Your task to perform on an android device: delete a single message in the gmail app Image 0: 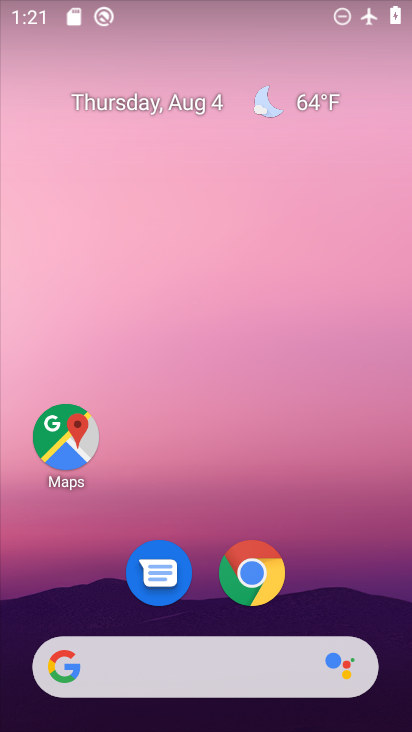
Step 0: drag from (361, 578) to (317, 26)
Your task to perform on an android device: delete a single message in the gmail app Image 1: 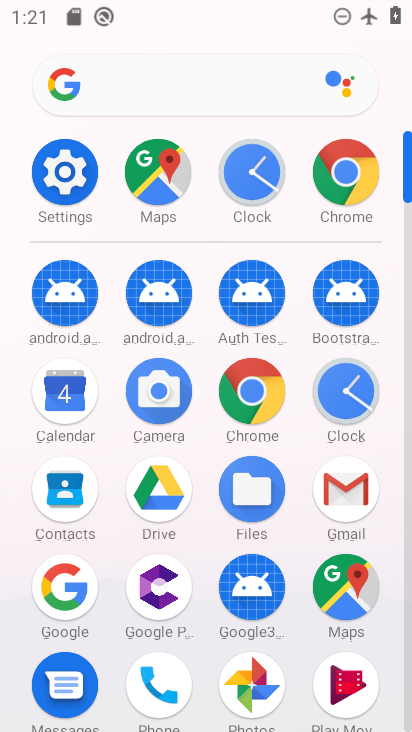
Step 1: click (356, 502)
Your task to perform on an android device: delete a single message in the gmail app Image 2: 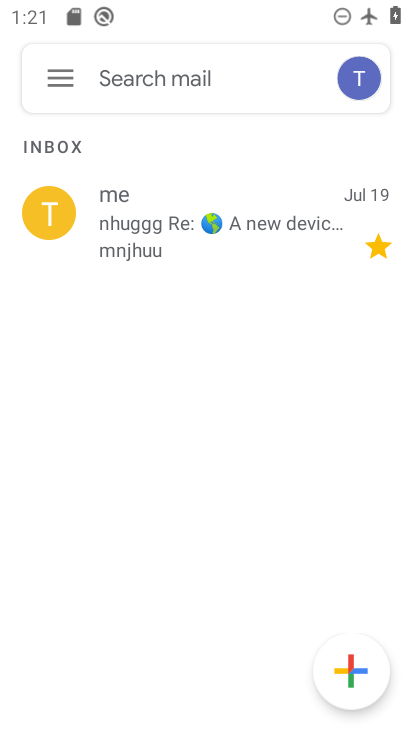
Step 2: click (224, 209)
Your task to perform on an android device: delete a single message in the gmail app Image 3: 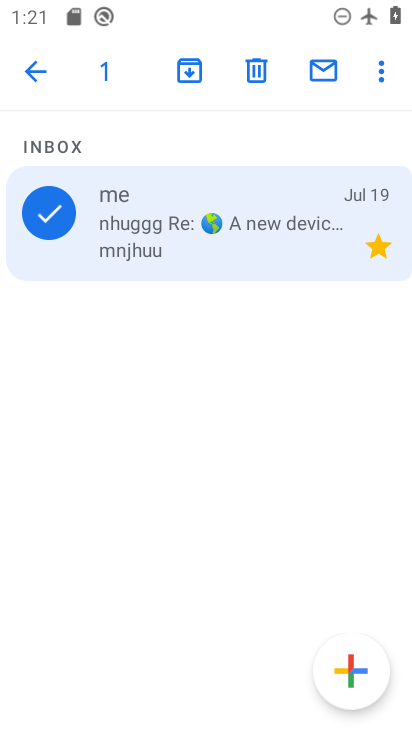
Step 3: click (269, 64)
Your task to perform on an android device: delete a single message in the gmail app Image 4: 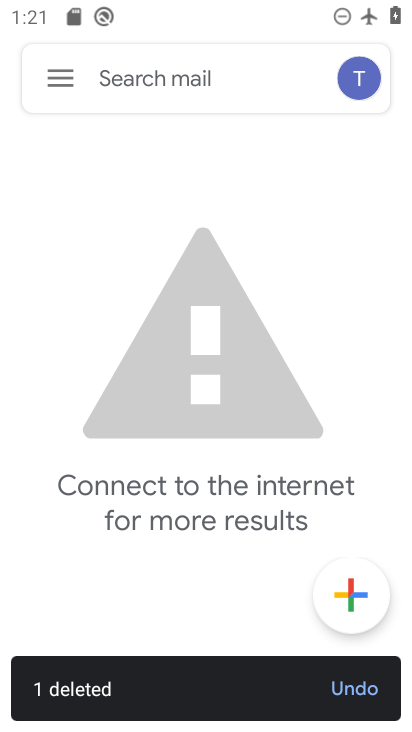
Step 4: task complete